Your task to perform on an android device: turn off notifications in google photos Image 0: 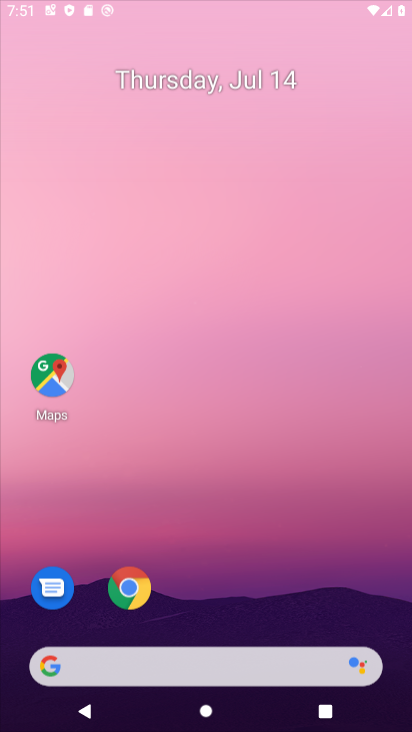
Step 0: drag from (337, 604) to (232, 93)
Your task to perform on an android device: turn off notifications in google photos Image 1: 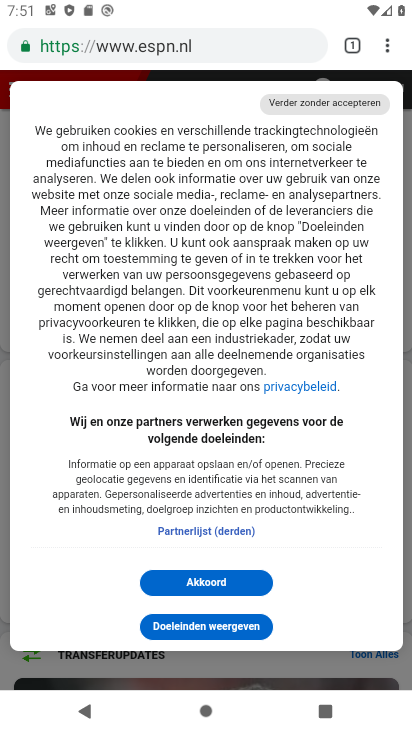
Step 1: press home button
Your task to perform on an android device: turn off notifications in google photos Image 2: 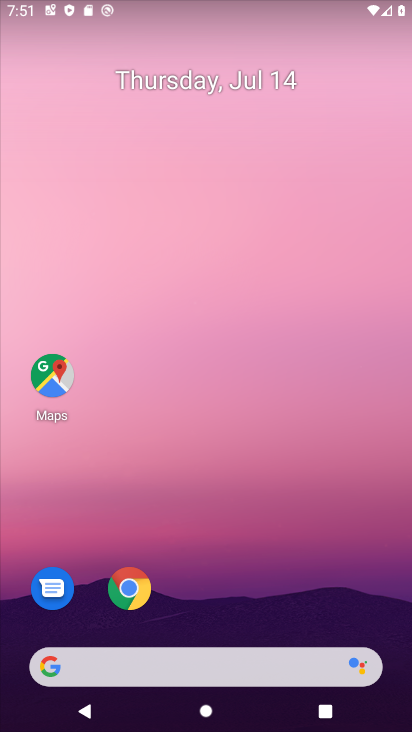
Step 2: drag from (315, 549) to (313, 126)
Your task to perform on an android device: turn off notifications in google photos Image 3: 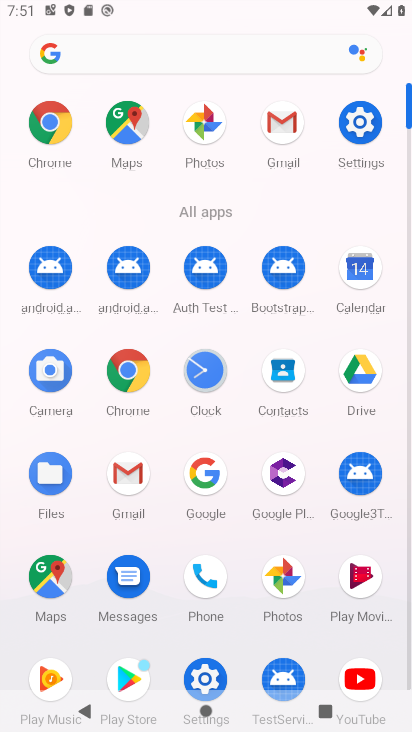
Step 3: click (301, 580)
Your task to perform on an android device: turn off notifications in google photos Image 4: 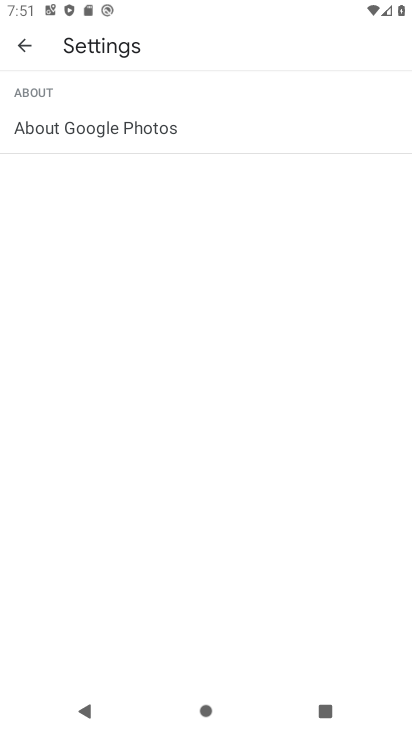
Step 4: click (26, 43)
Your task to perform on an android device: turn off notifications in google photos Image 5: 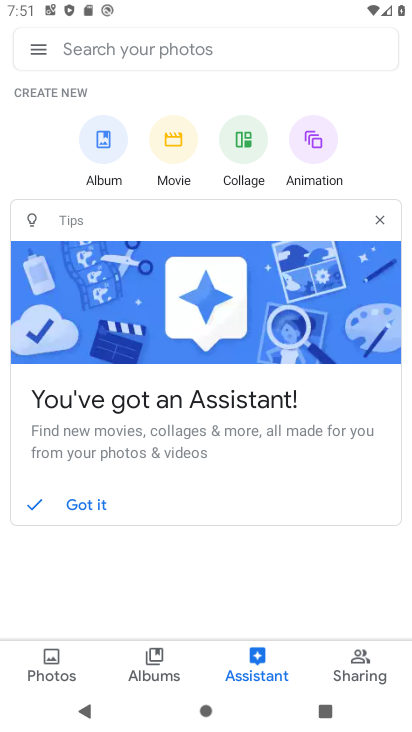
Step 5: click (26, 43)
Your task to perform on an android device: turn off notifications in google photos Image 6: 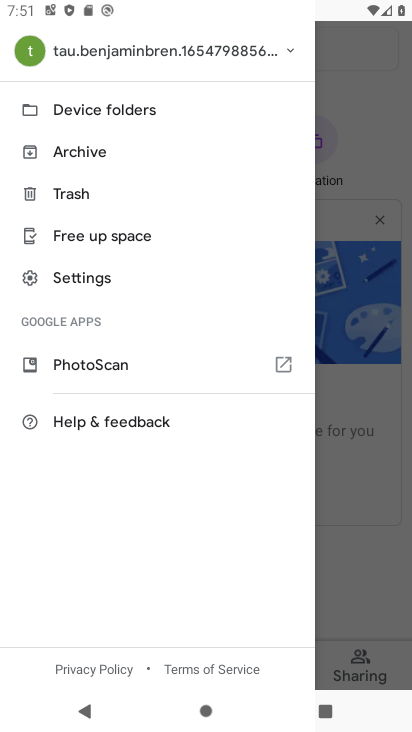
Step 6: click (100, 289)
Your task to perform on an android device: turn off notifications in google photos Image 7: 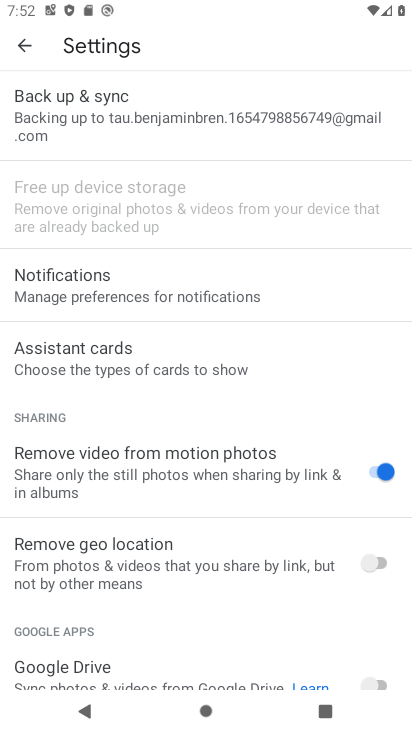
Step 7: click (153, 292)
Your task to perform on an android device: turn off notifications in google photos Image 8: 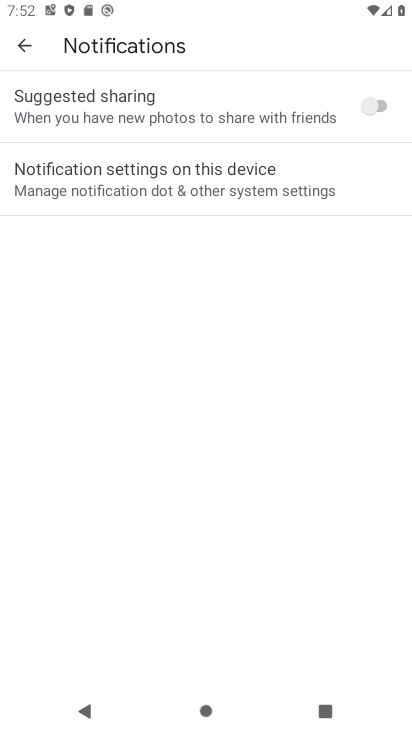
Step 8: click (153, 158)
Your task to perform on an android device: turn off notifications in google photos Image 9: 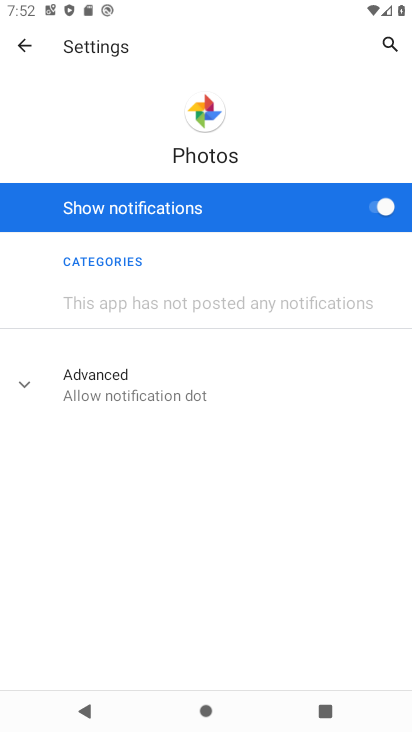
Step 9: click (379, 208)
Your task to perform on an android device: turn off notifications in google photos Image 10: 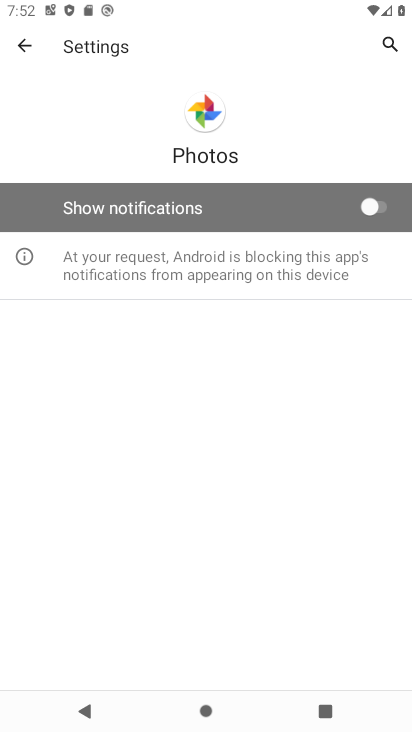
Step 10: task complete